Your task to perform on an android device: Look up the best rated gaming chair on Best Buy Image 0: 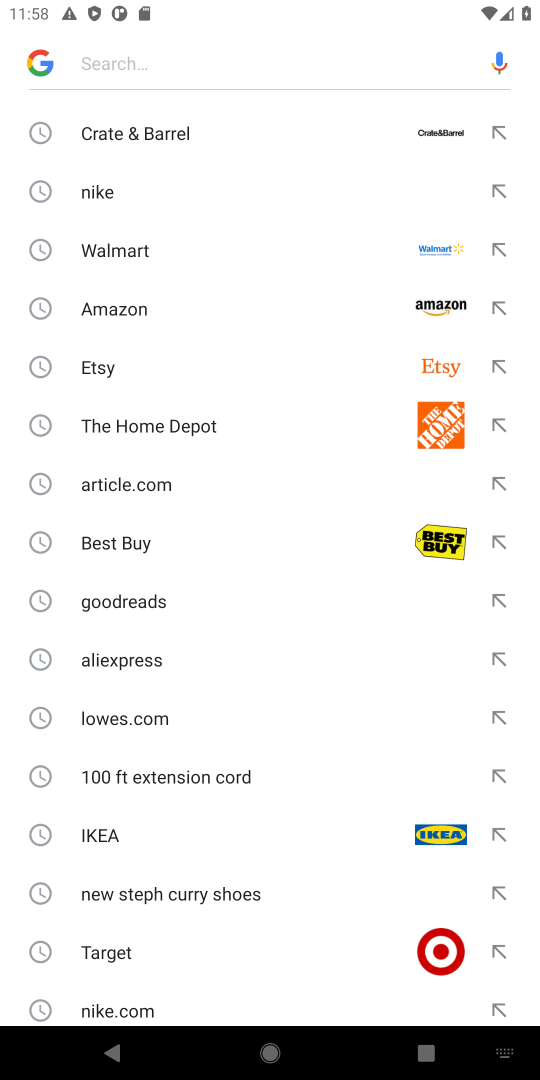
Step 0: press home button
Your task to perform on an android device: Look up the best rated gaming chair on Best Buy Image 1: 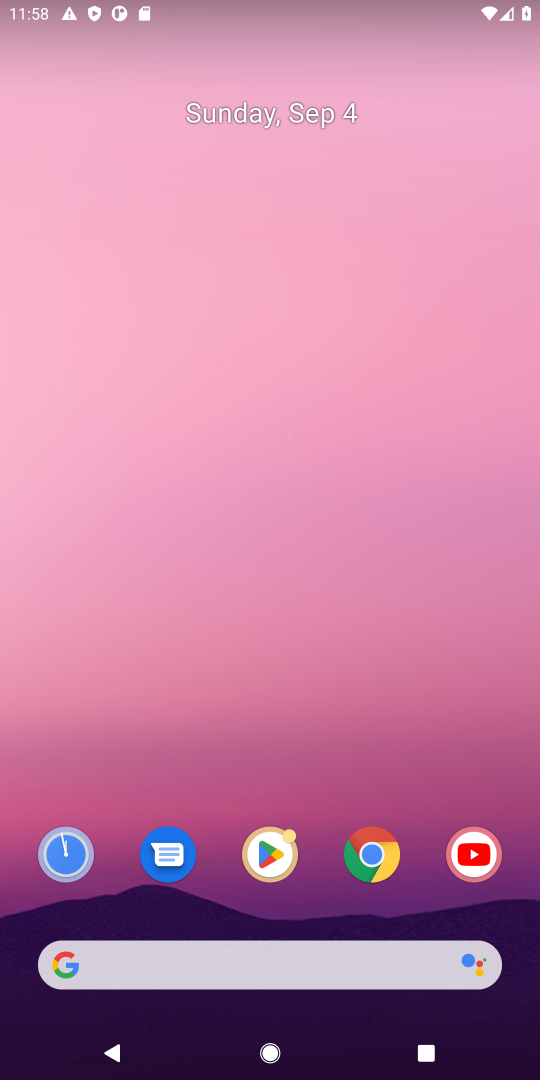
Step 1: click (318, 960)
Your task to perform on an android device: Look up the best rated gaming chair on Best Buy Image 2: 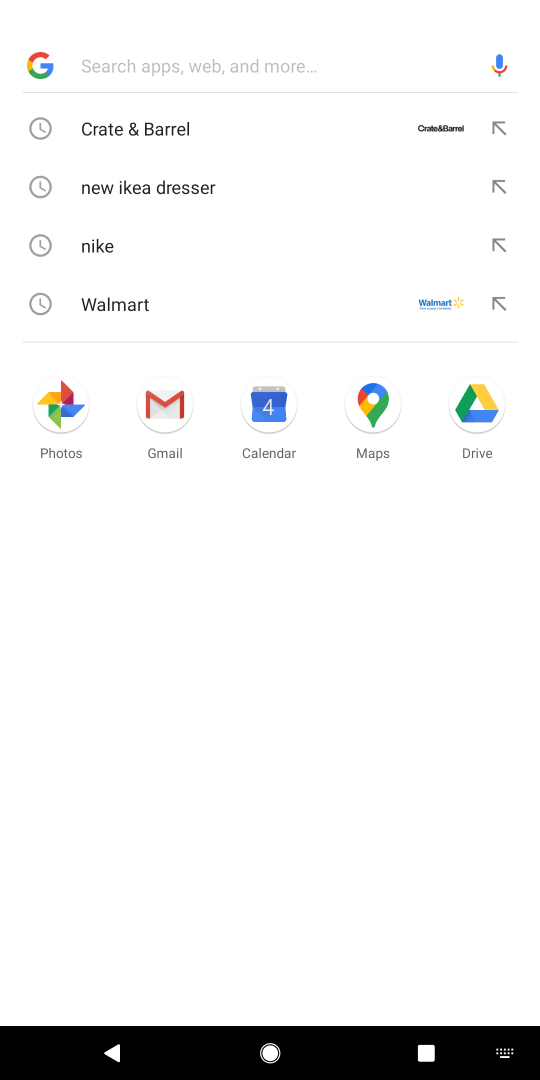
Step 2: type "best buy"
Your task to perform on an android device: Look up the best rated gaming chair on Best Buy Image 3: 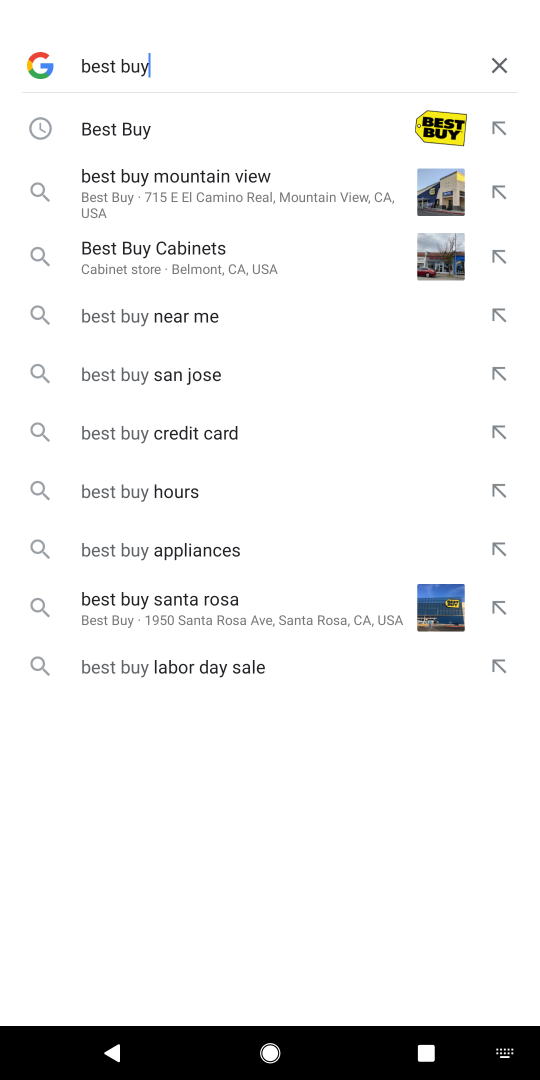
Step 3: press enter
Your task to perform on an android device: Look up the best rated gaming chair on Best Buy Image 4: 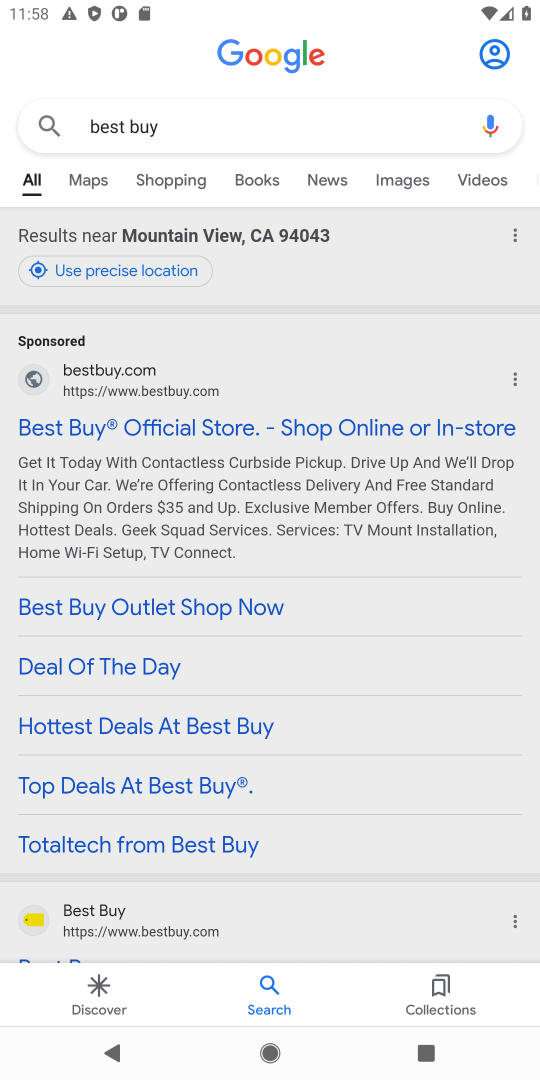
Step 4: click (163, 421)
Your task to perform on an android device: Look up the best rated gaming chair on Best Buy Image 5: 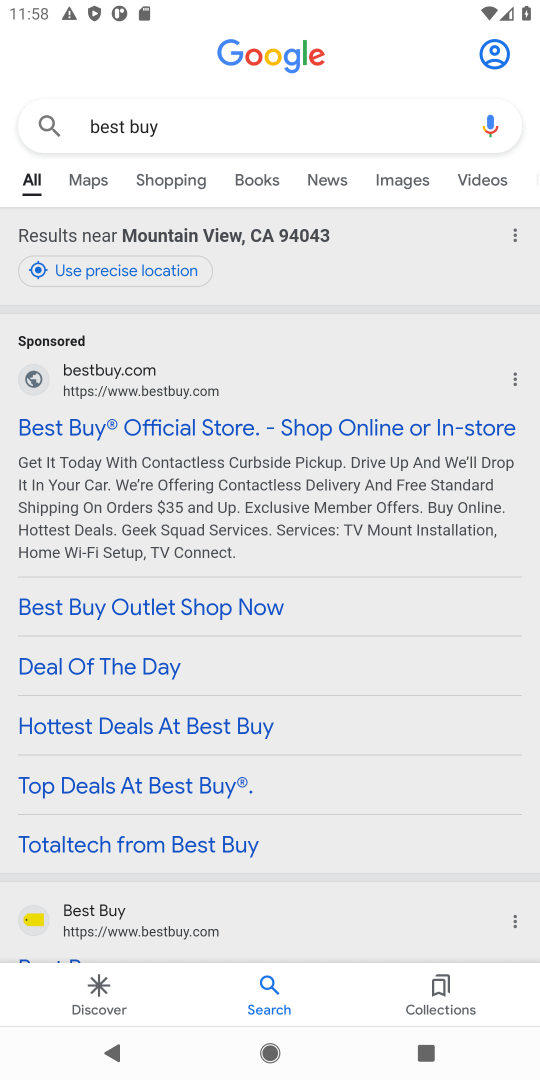
Step 5: click (136, 420)
Your task to perform on an android device: Look up the best rated gaming chair on Best Buy Image 6: 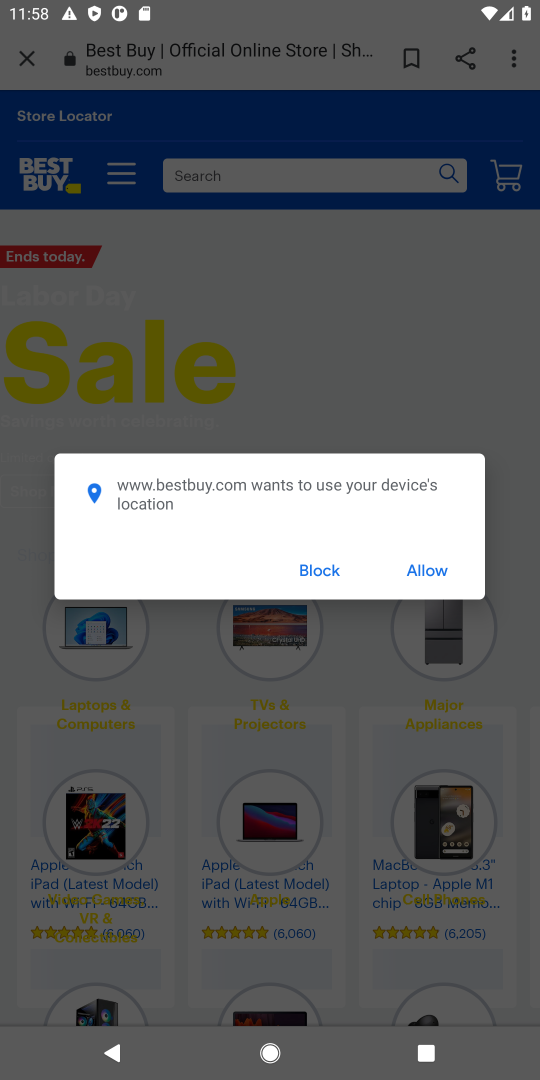
Step 6: click (198, 174)
Your task to perform on an android device: Look up the best rated gaming chair on Best Buy Image 7: 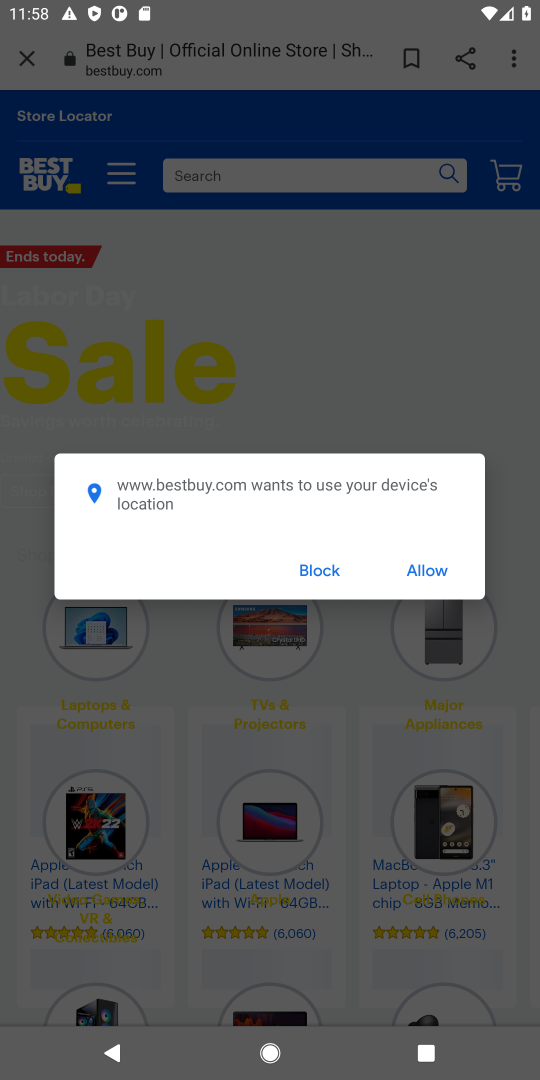
Step 7: click (306, 565)
Your task to perform on an android device: Look up the best rated gaming chair on Best Buy Image 8: 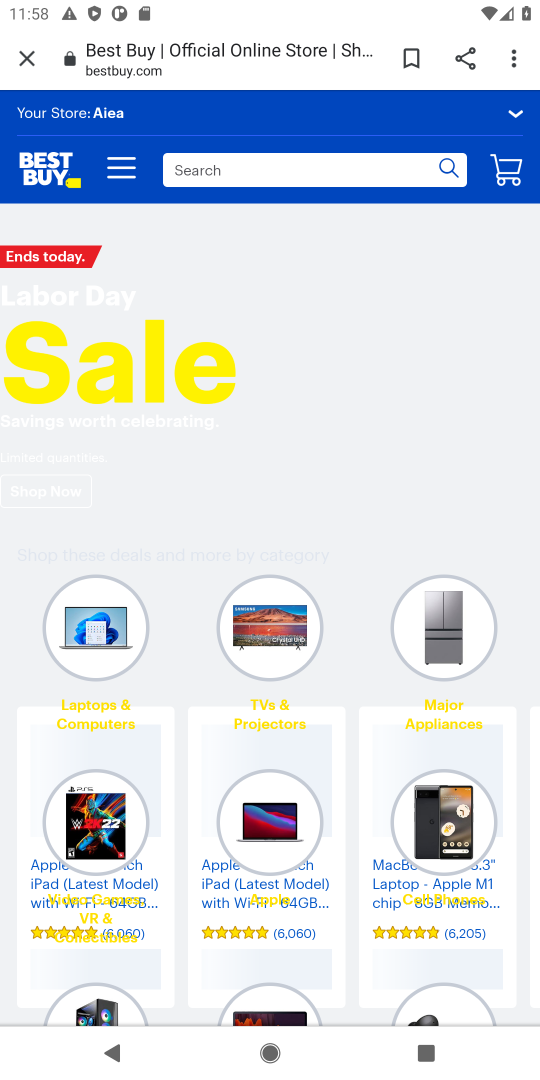
Step 8: click (218, 165)
Your task to perform on an android device: Look up the best rated gaming chair on Best Buy Image 9: 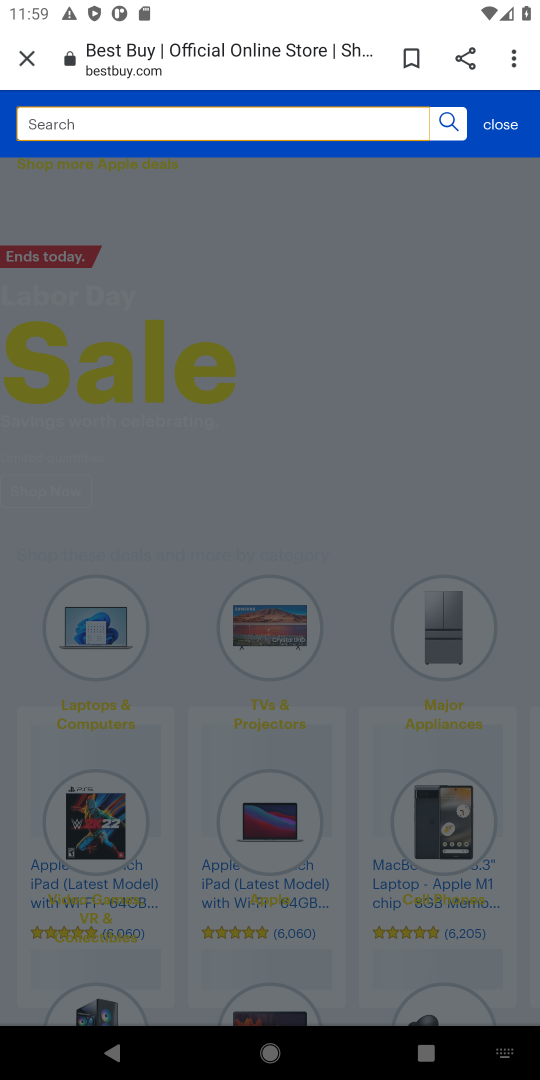
Step 9: type "best rated gaming chair"
Your task to perform on an android device: Look up the best rated gaming chair on Best Buy Image 10: 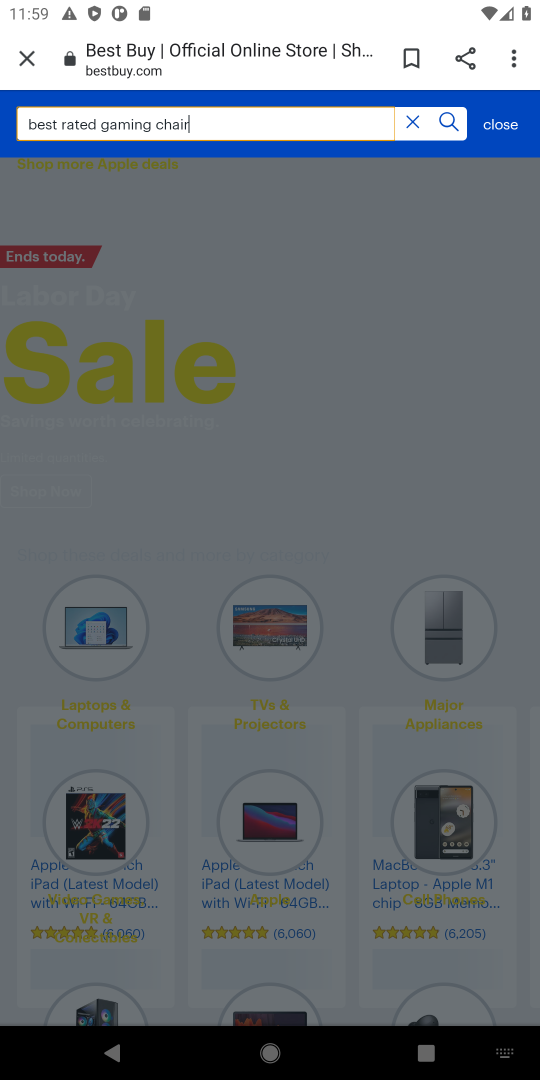
Step 10: press enter
Your task to perform on an android device: Look up the best rated gaming chair on Best Buy Image 11: 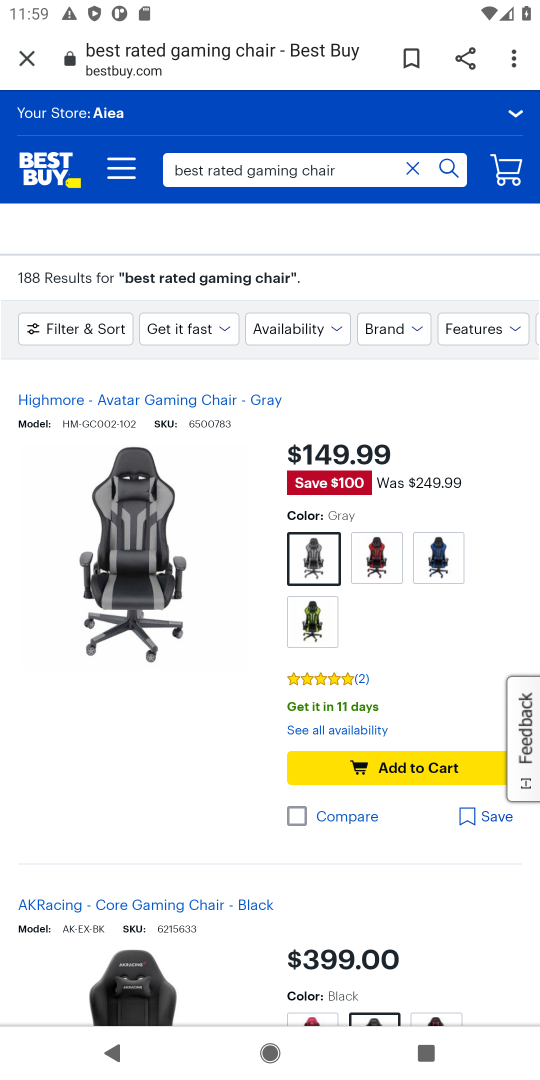
Step 11: task complete